Your task to perform on an android device: toggle pop-ups in chrome Image 0: 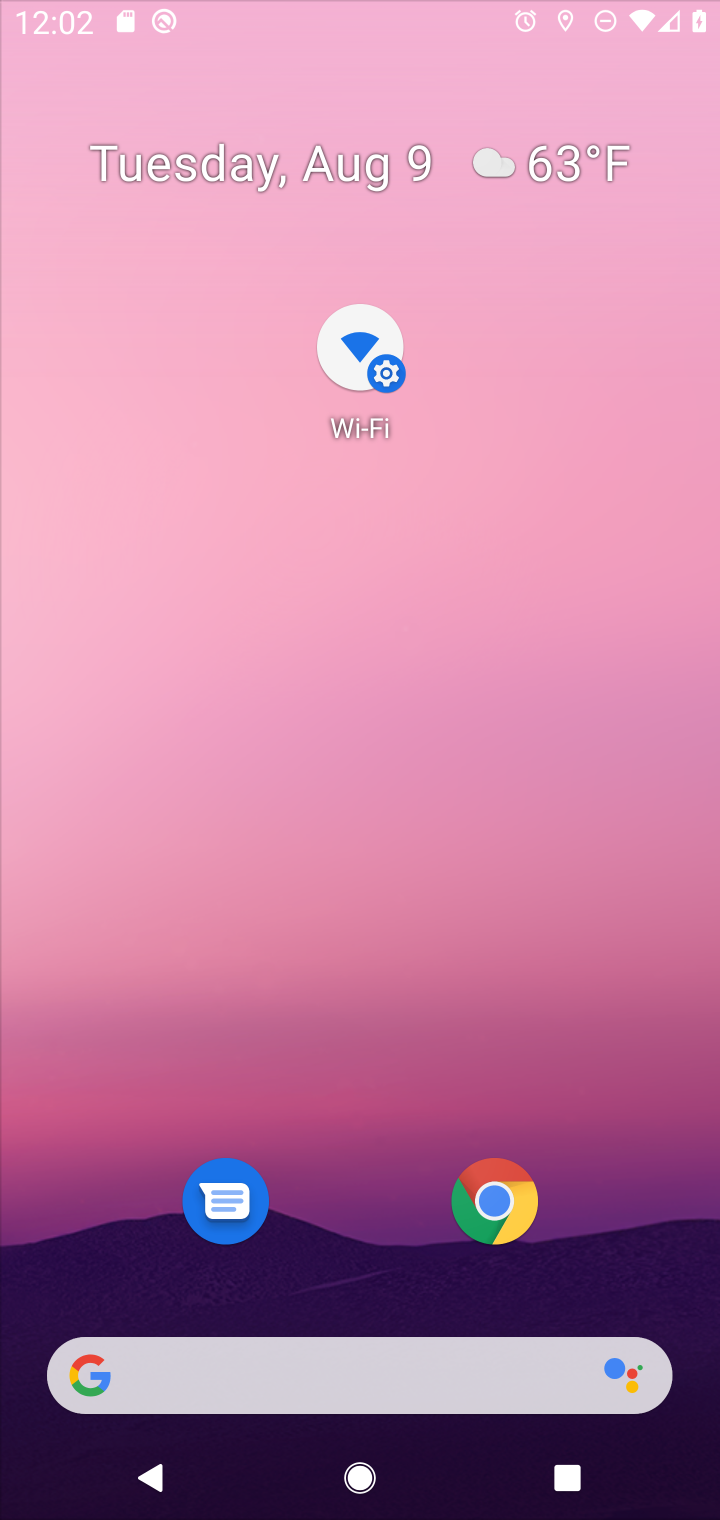
Step 0: press home button
Your task to perform on an android device: toggle pop-ups in chrome Image 1: 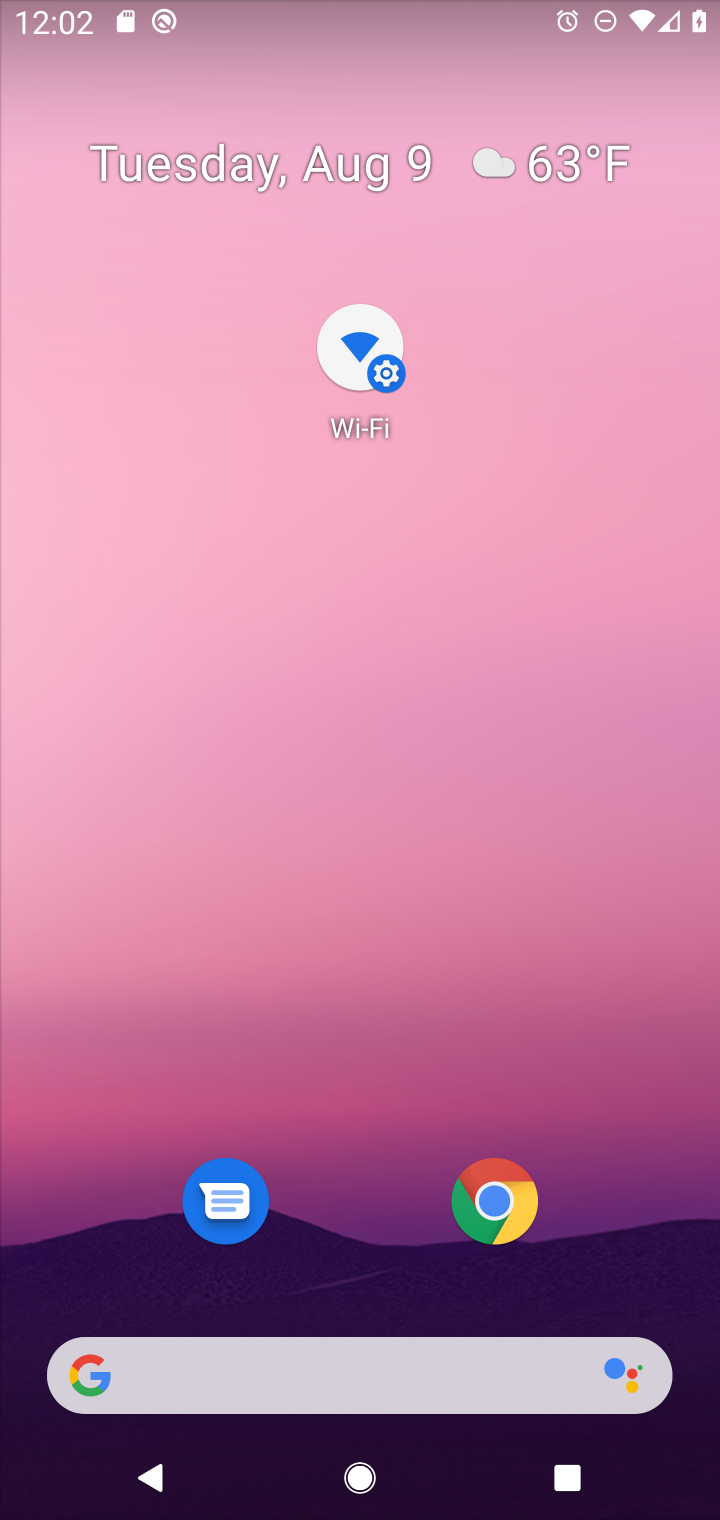
Step 1: drag from (373, 1177) to (502, 362)
Your task to perform on an android device: toggle pop-ups in chrome Image 2: 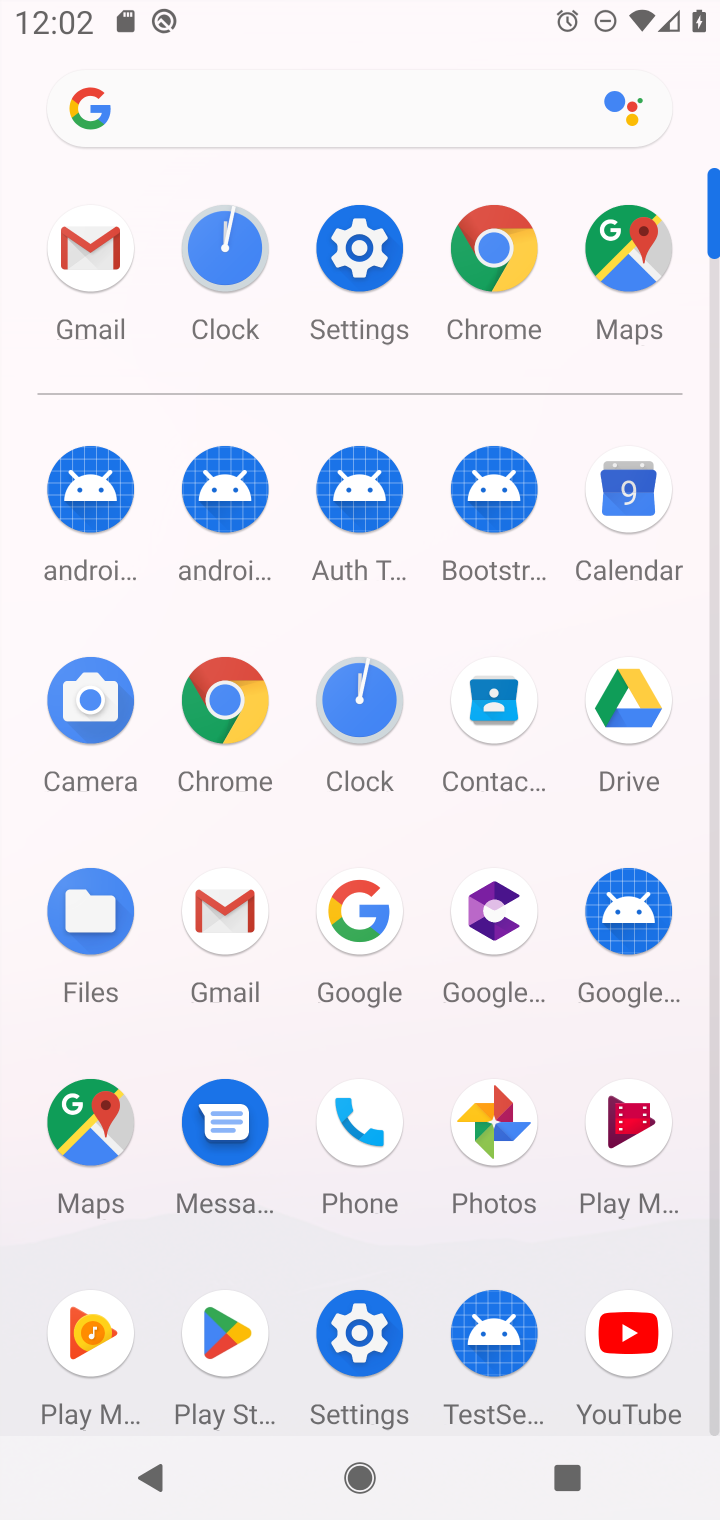
Step 2: click (510, 266)
Your task to perform on an android device: toggle pop-ups in chrome Image 3: 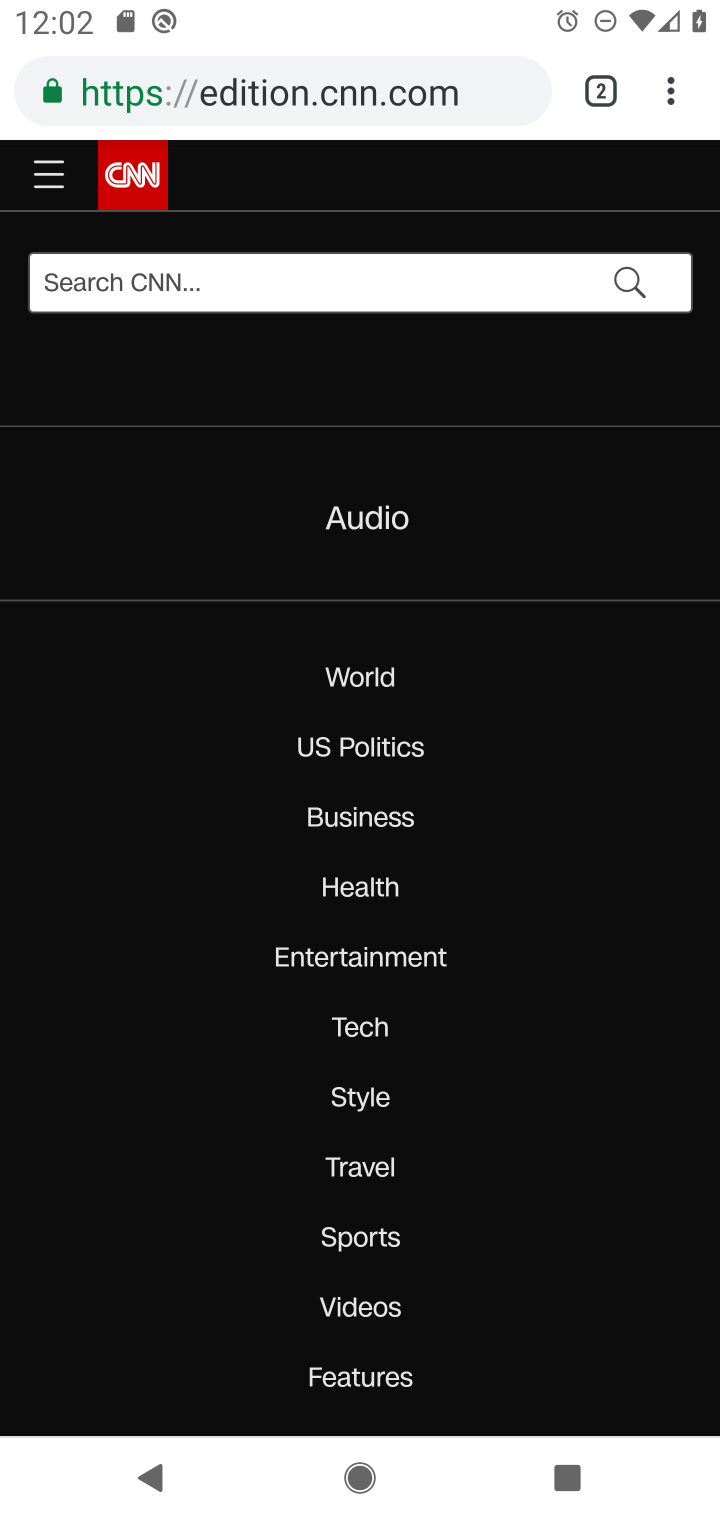
Step 3: click (674, 97)
Your task to perform on an android device: toggle pop-ups in chrome Image 4: 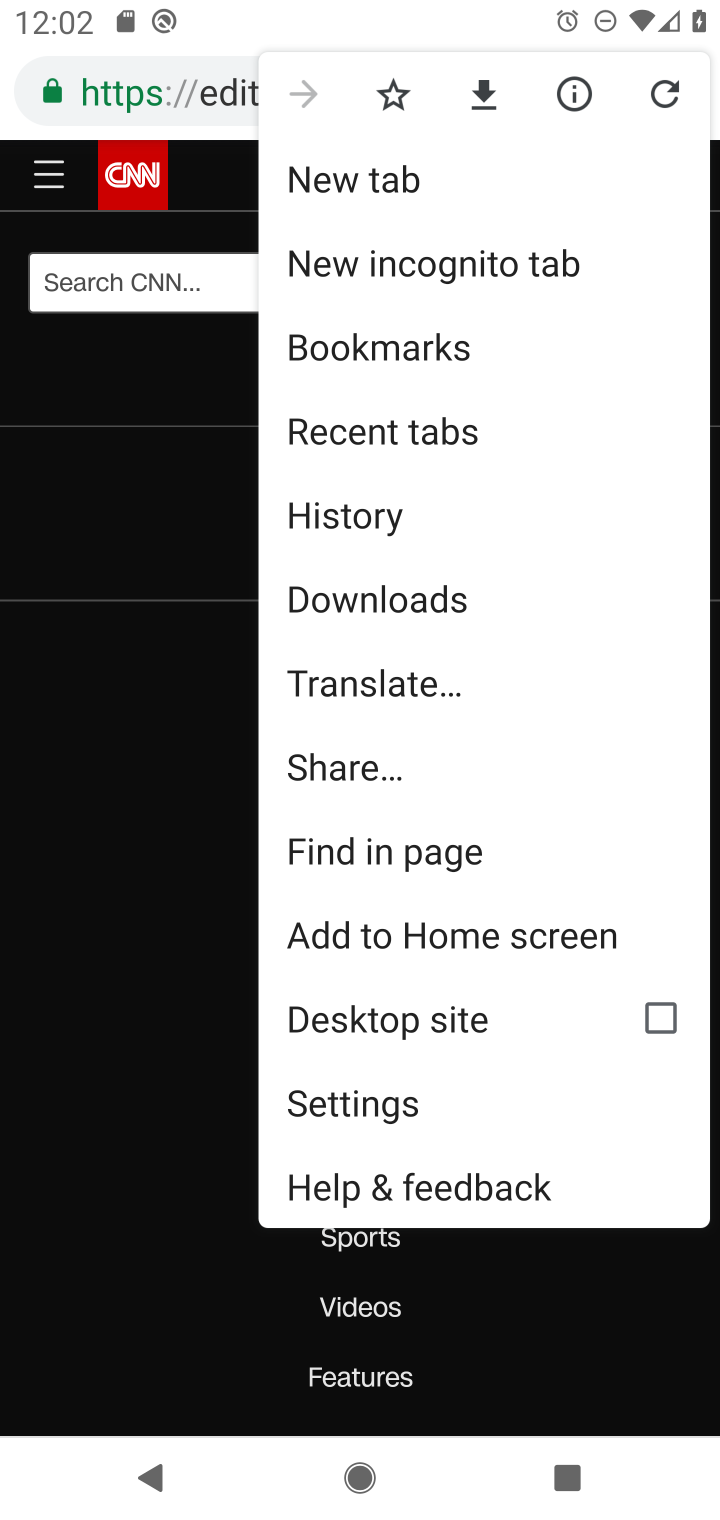
Step 4: click (384, 1104)
Your task to perform on an android device: toggle pop-ups in chrome Image 5: 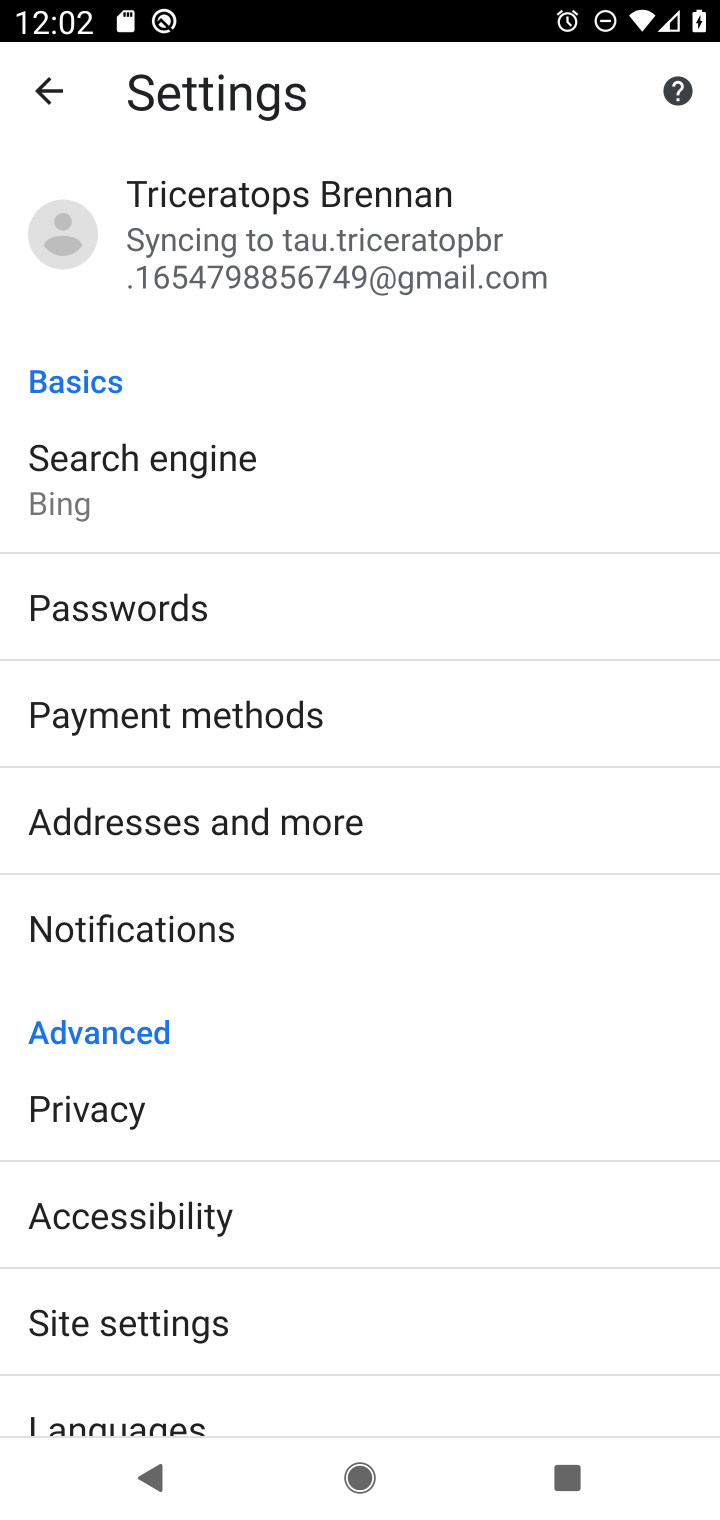
Step 5: drag from (599, 1042) to (606, 737)
Your task to perform on an android device: toggle pop-ups in chrome Image 6: 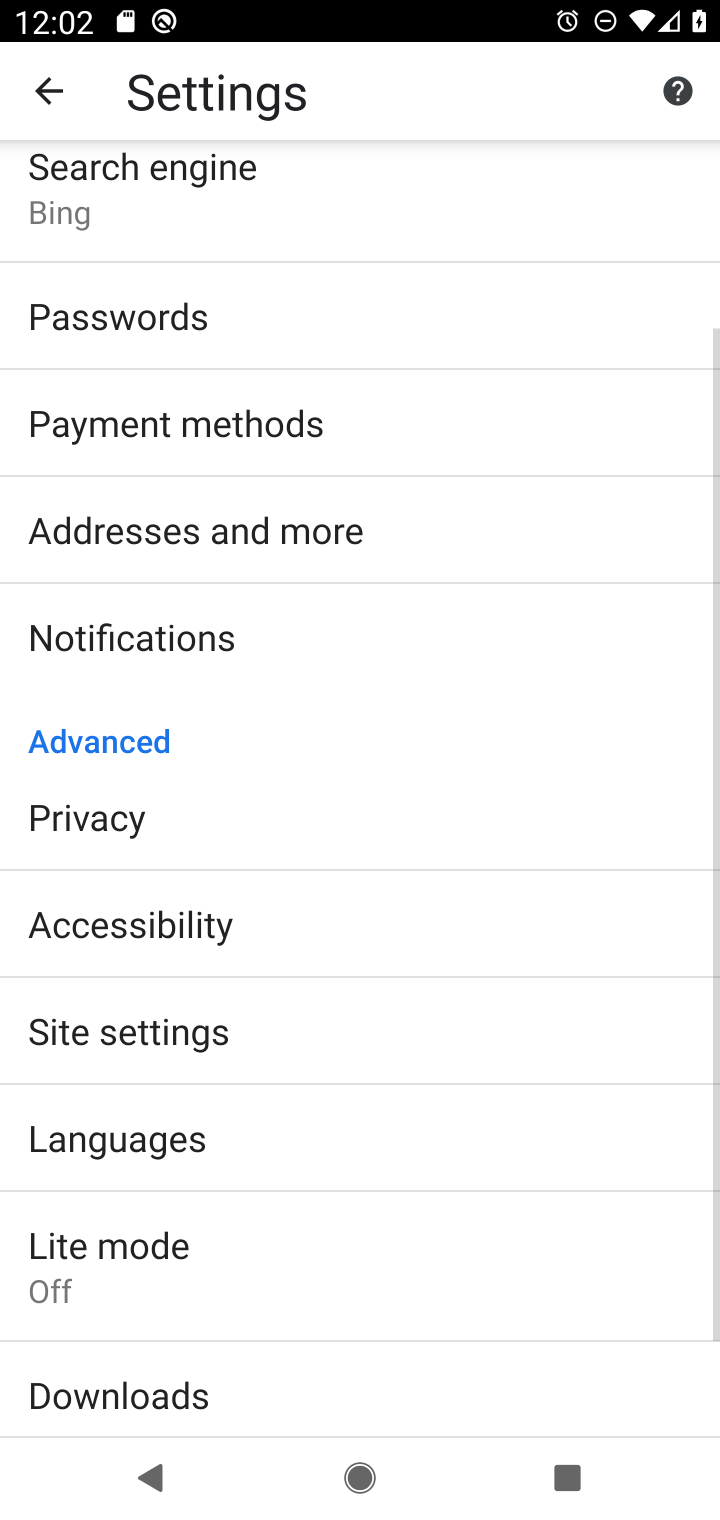
Step 6: drag from (517, 1069) to (540, 784)
Your task to perform on an android device: toggle pop-ups in chrome Image 7: 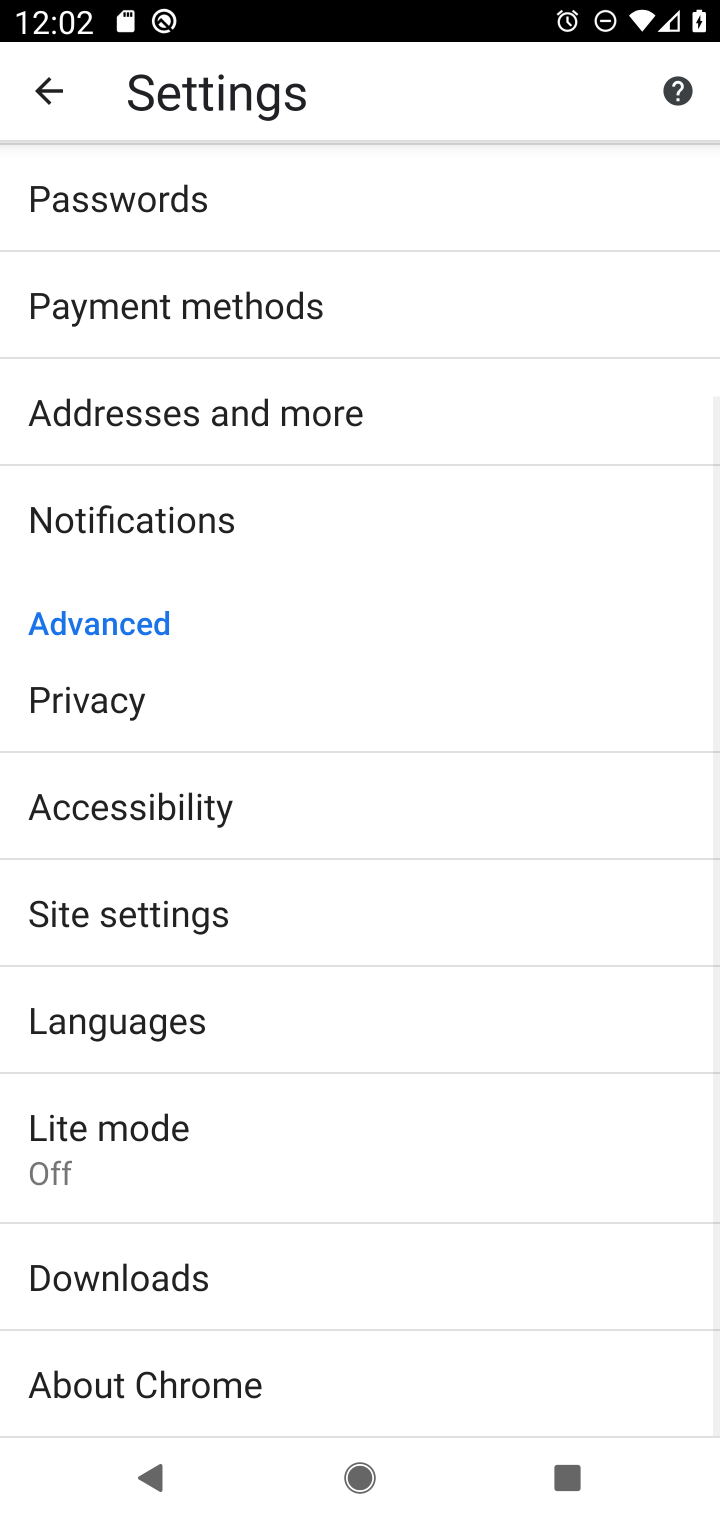
Step 7: drag from (458, 1102) to (454, 910)
Your task to perform on an android device: toggle pop-ups in chrome Image 8: 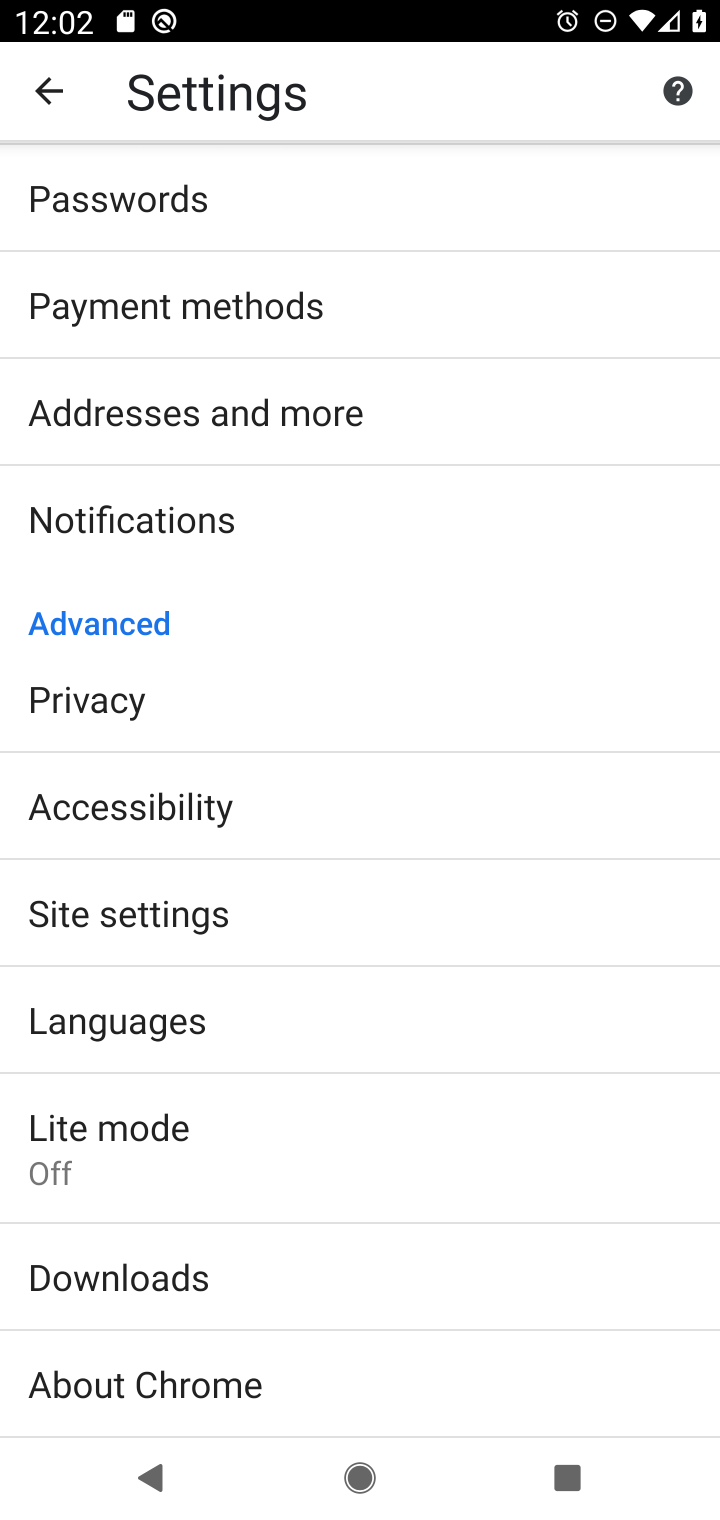
Step 8: click (358, 913)
Your task to perform on an android device: toggle pop-ups in chrome Image 9: 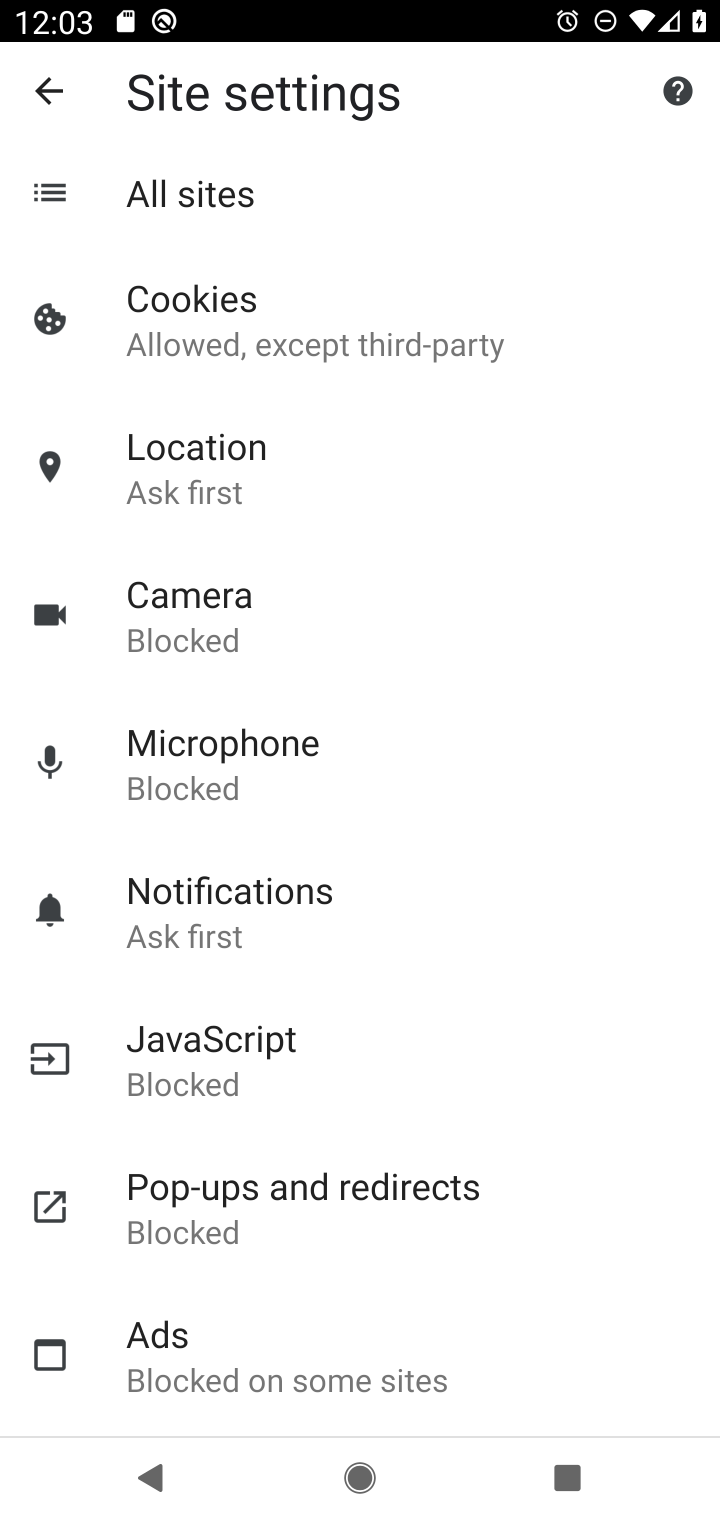
Step 9: click (464, 1211)
Your task to perform on an android device: toggle pop-ups in chrome Image 10: 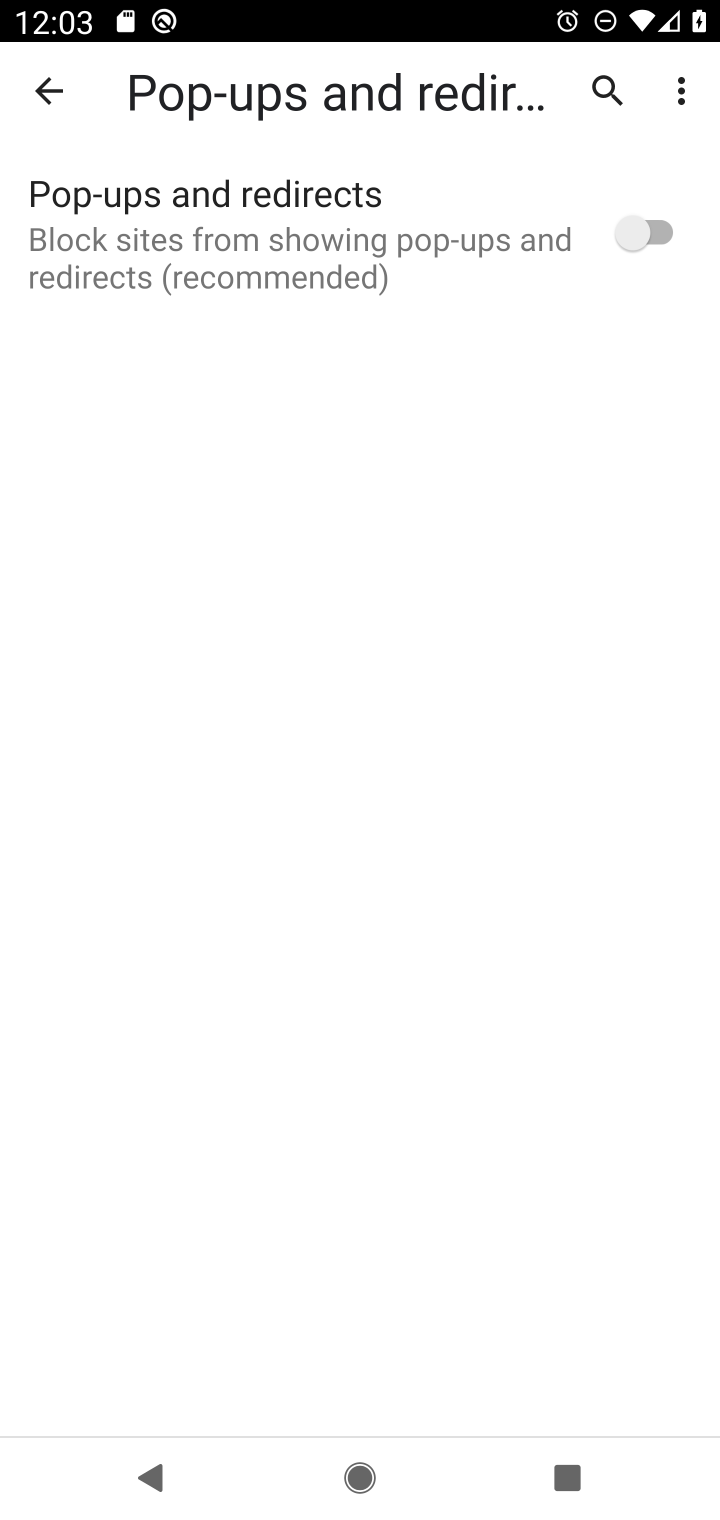
Step 10: click (631, 231)
Your task to perform on an android device: toggle pop-ups in chrome Image 11: 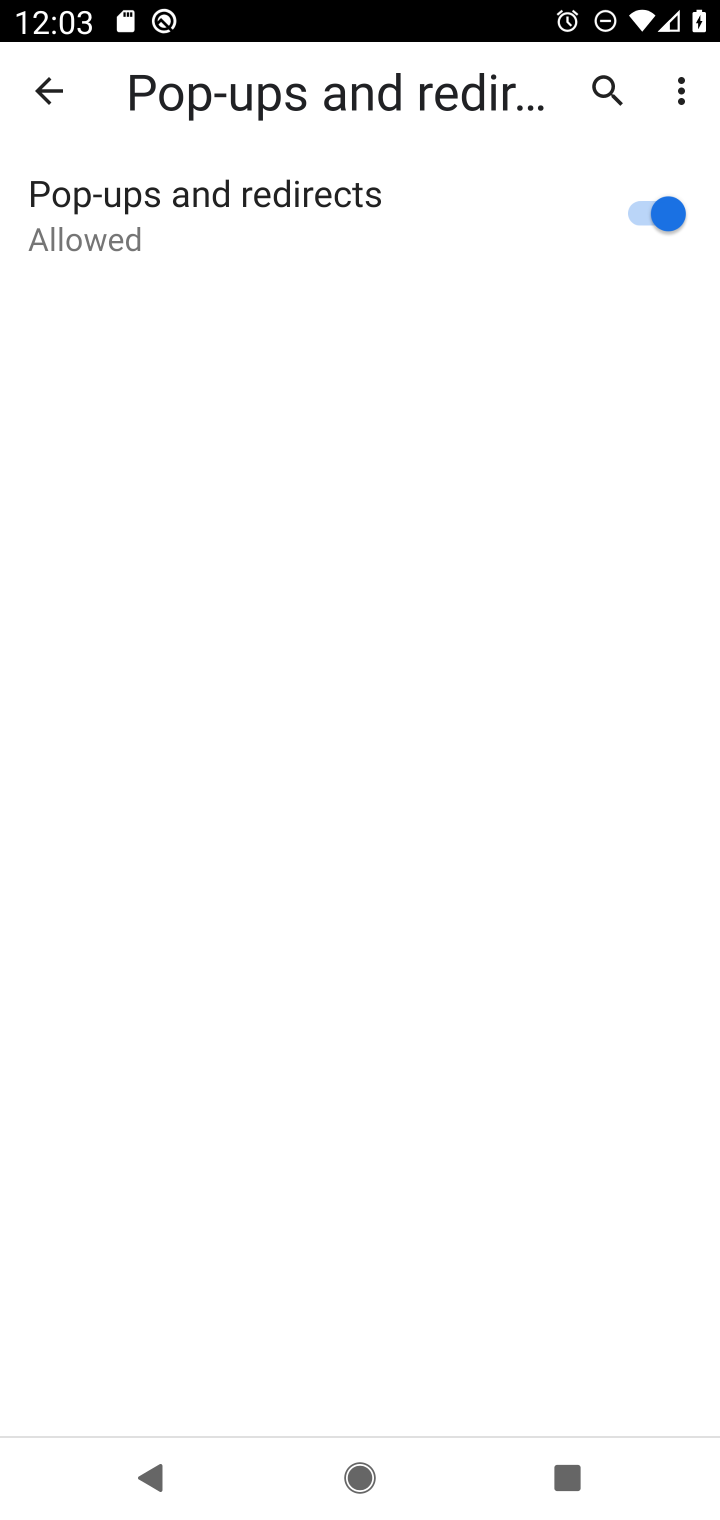
Step 11: task complete